Your task to perform on an android device: toggle pop-ups in chrome Image 0: 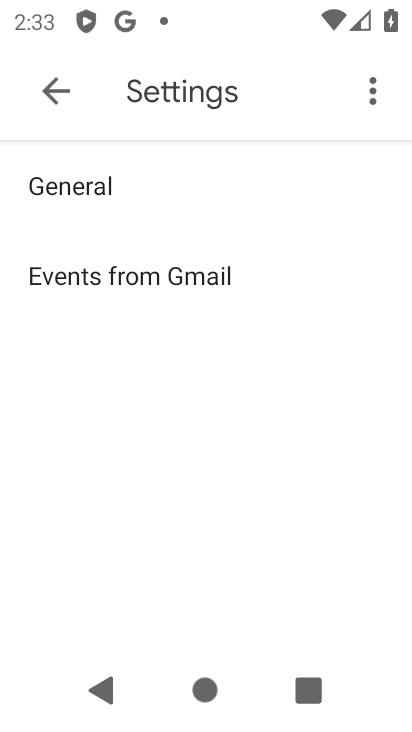
Step 0: press back button
Your task to perform on an android device: toggle pop-ups in chrome Image 1: 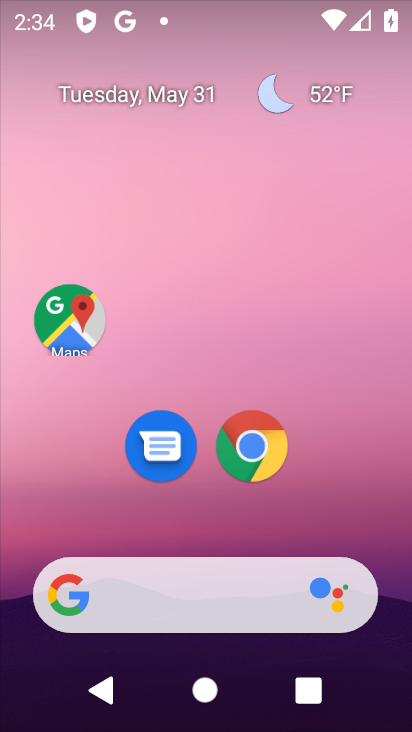
Step 1: click (251, 448)
Your task to perform on an android device: toggle pop-ups in chrome Image 2: 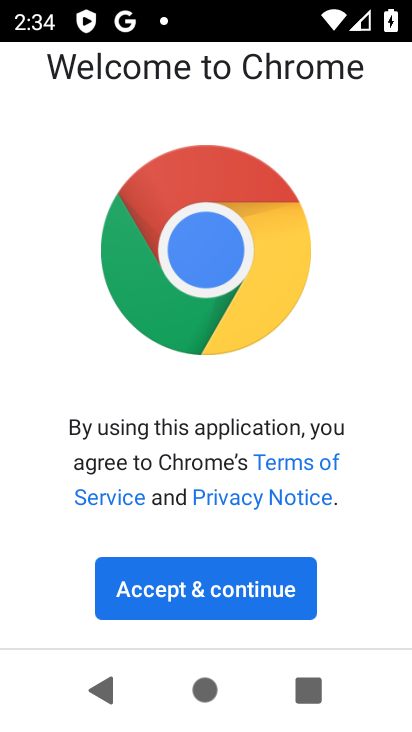
Step 2: click (193, 592)
Your task to perform on an android device: toggle pop-ups in chrome Image 3: 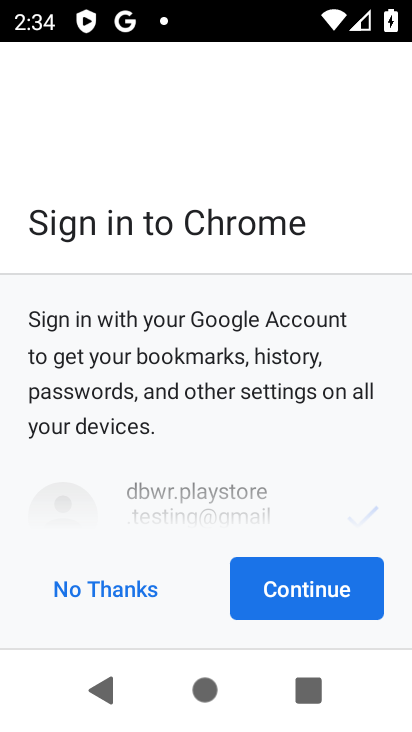
Step 3: click (337, 595)
Your task to perform on an android device: toggle pop-ups in chrome Image 4: 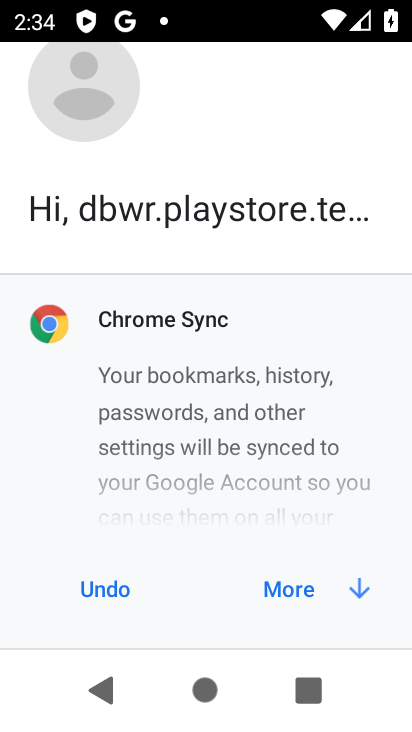
Step 4: click (301, 579)
Your task to perform on an android device: toggle pop-ups in chrome Image 5: 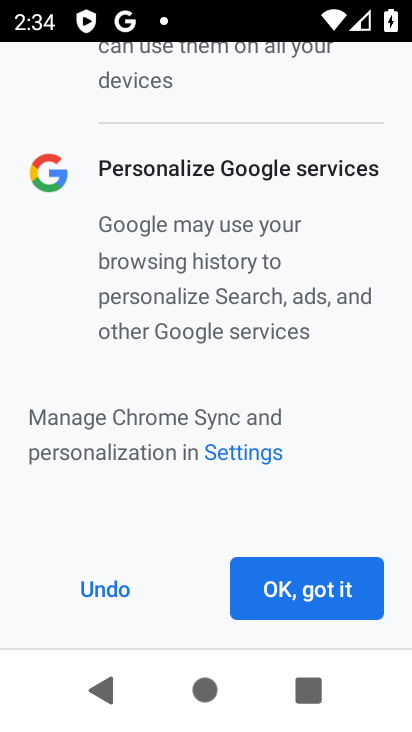
Step 5: click (303, 579)
Your task to perform on an android device: toggle pop-ups in chrome Image 6: 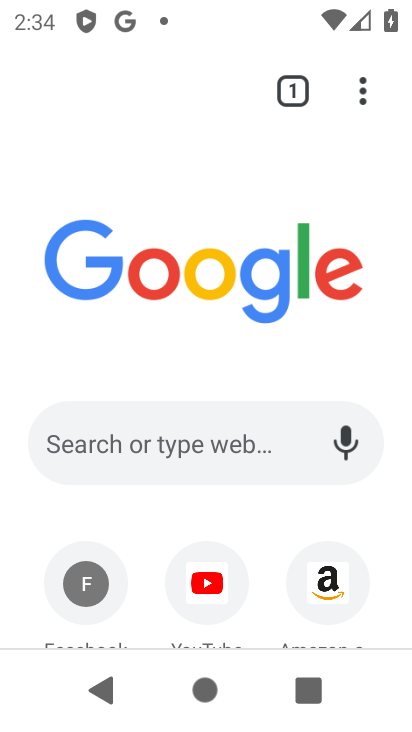
Step 6: click (363, 91)
Your task to perform on an android device: toggle pop-ups in chrome Image 7: 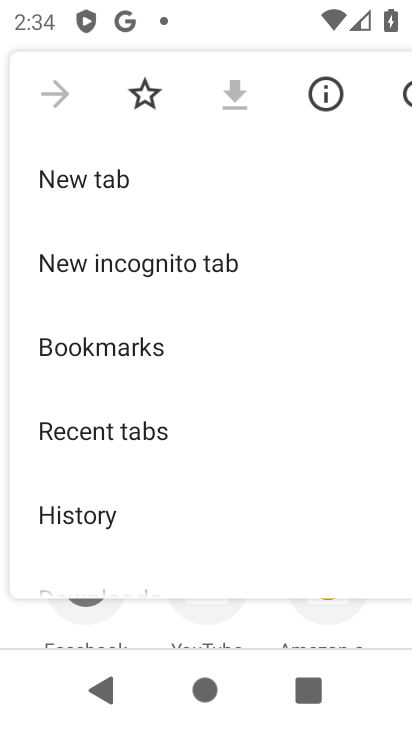
Step 7: drag from (117, 497) to (206, 361)
Your task to perform on an android device: toggle pop-ups in chrome Image 8: 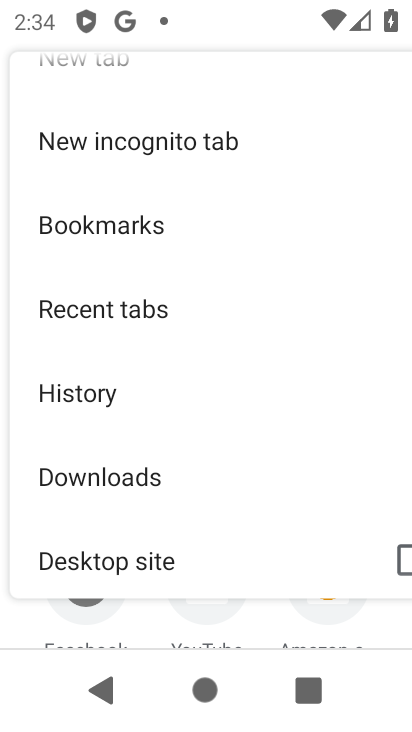
Step 8: drag from (109, 509) to (203, 403)
Your task to perform on an android device: toggle pop-ups in chrome Image 9: 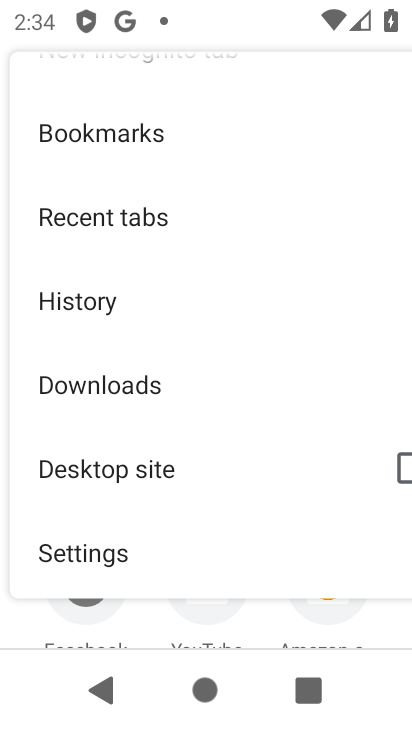
Step 9: drag from (140, 513) to (221, 394)
Your task to perform on an android device: toggle pop-ups in chrome Image 10: 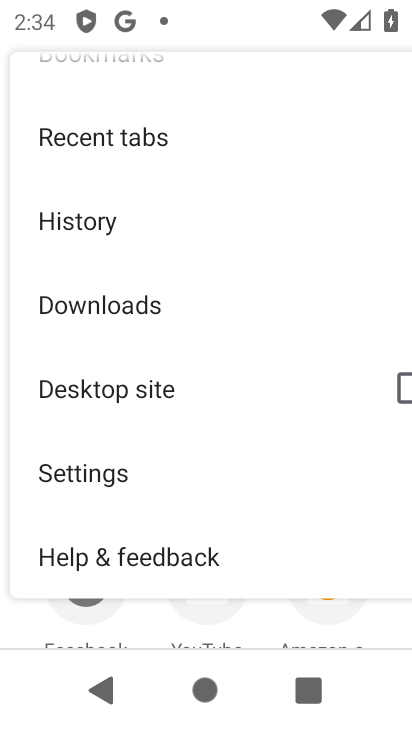
Step 10: click (121, 475)
Your task to perform on an android device: toggle pop-ups in chrome Image 11: 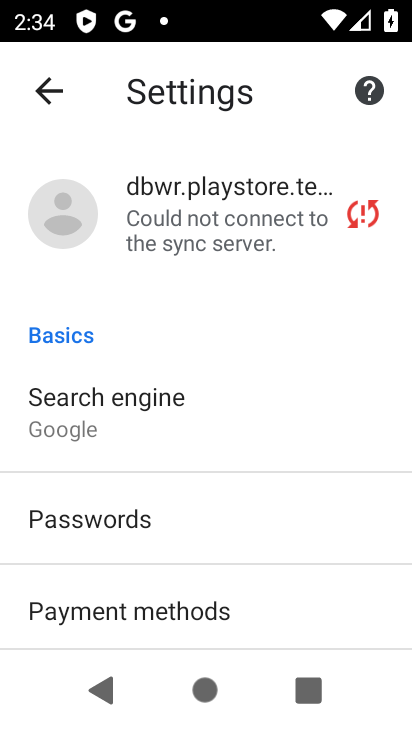
Step 11: drag from (178, 559) to (256, 436)
Your task to perform on an android device: toggle pop-ups in chrome Image 12: 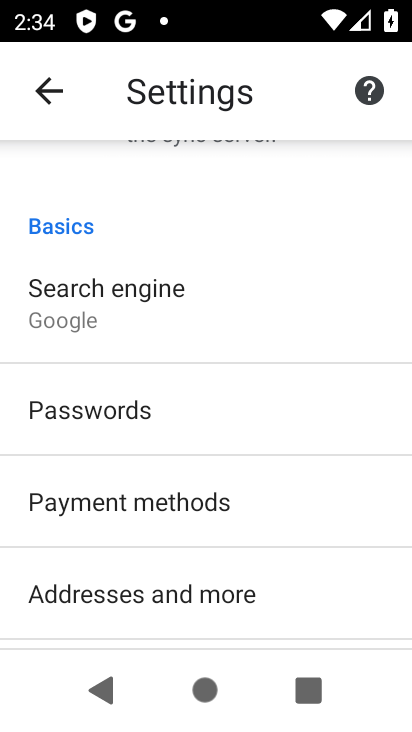
Step 12: drag from (173, 558) to (248, 470)
Your task to perform on an android device: toggle pop-ups in chrome Image 13: 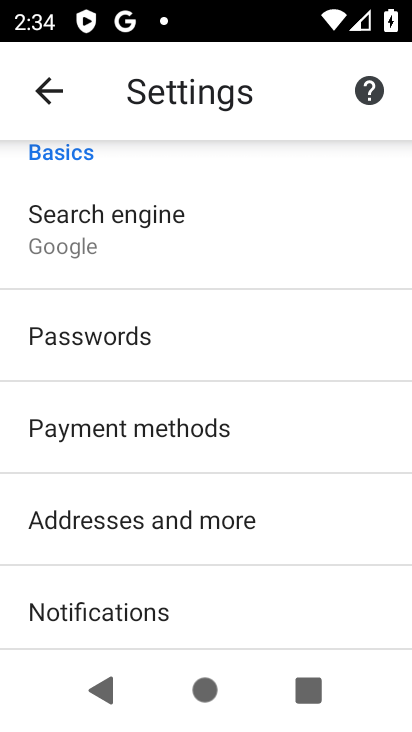
Step 13: drag from (177, 599) to (240, 505)
Your task to perform on an android device: toggle pop-ups in chrome Image 14: 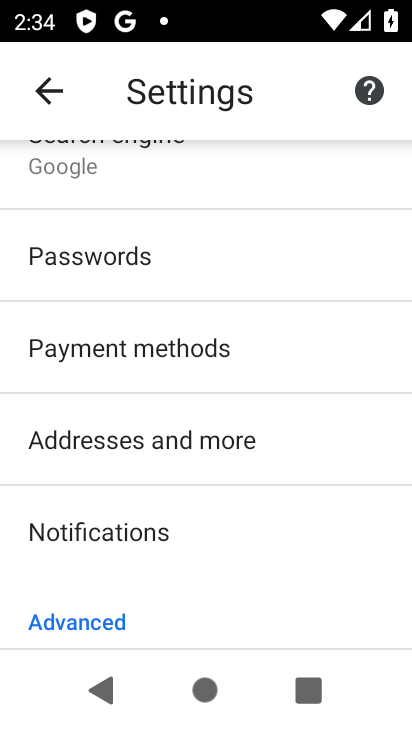
Step 14: drag from (164, 566) to (250, 450)
Your task to perform on an android device: toggle pop-ups in chrome Image 15: 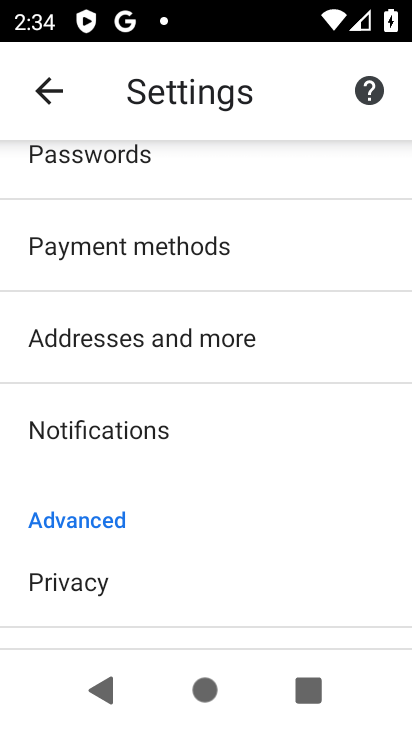
Step 15: drag from (170, 574) to (273, 444)
Your task to perform on an android device: toggle pop-ups in chrome Image 16: 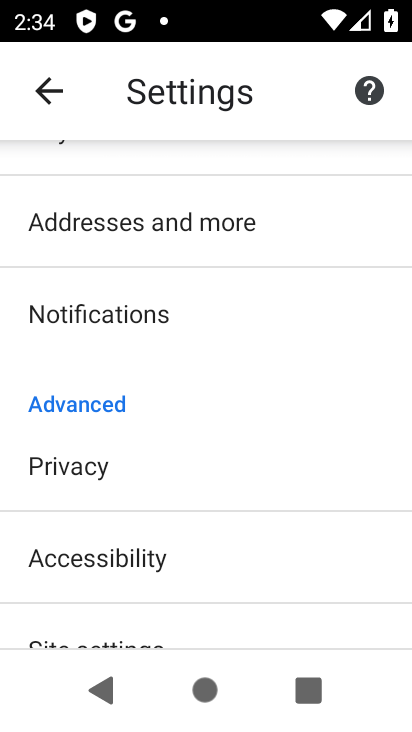
Step 16: drag from (179, 554) to (252, 468)
Your task to perform on an android device: toggle pop-ups in chrome Image 17: 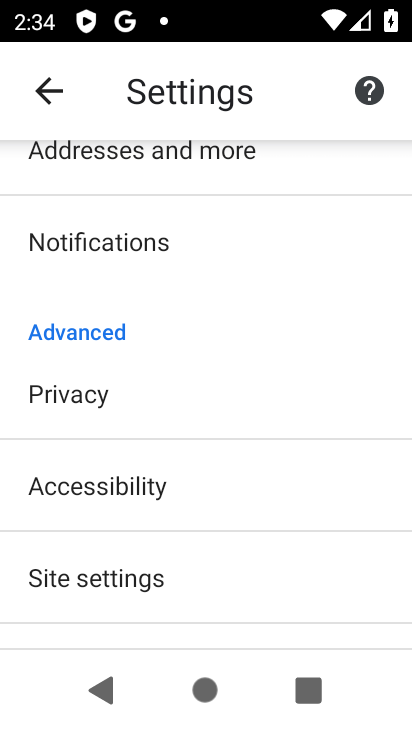
Step 17: click (144, 575)
Your task to perform on an android device: toggle pop-ups in chrome Image 18: 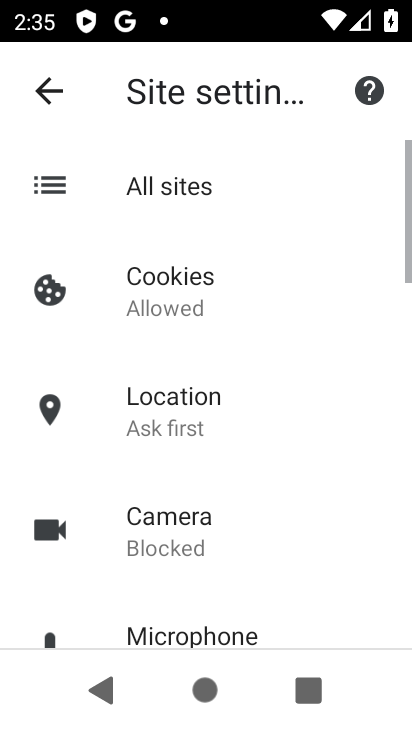
Step 18: drag from (238, 518) to (307, 425)
Your task to perform on an android device: toggle pop-ups in chrome Image 19: 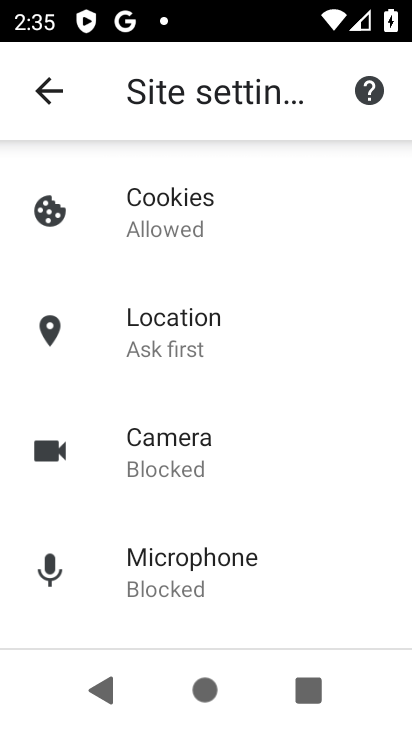
Step 19: drag from (237, 562) to (309, 437)
Your task to perform on an android device: toggle pop-ups in chrome Image 20: 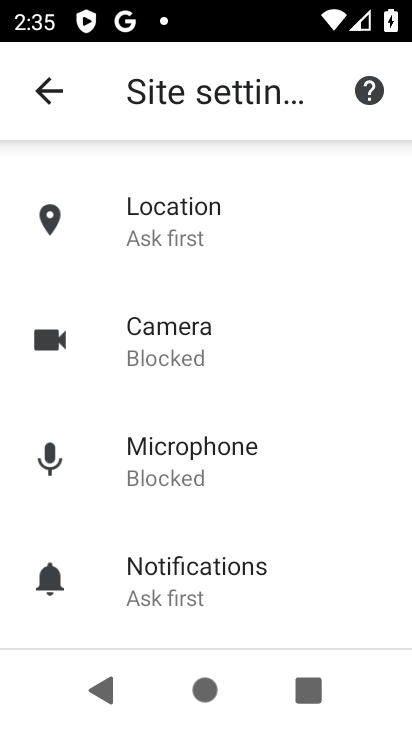
Step 20: drag from (228, 540) to (282, 386)
Your task to perform on an android device: toggle pop-ups in chrome Image 21: 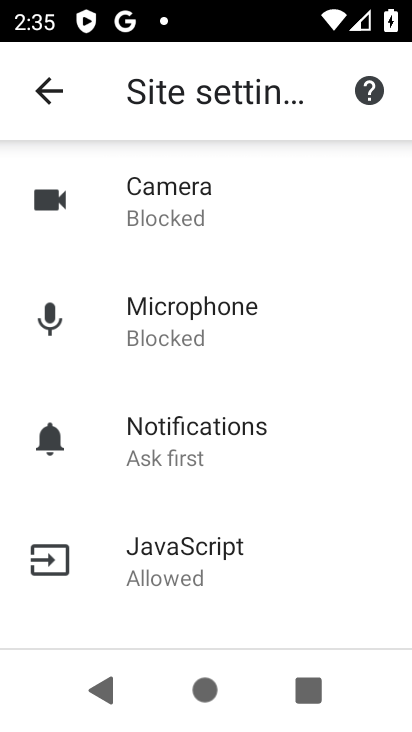
Step 21: drag from (221, 517) to (277, 414)
Your task to perform on an android device: toggle pop-ups in chrome Image 22: 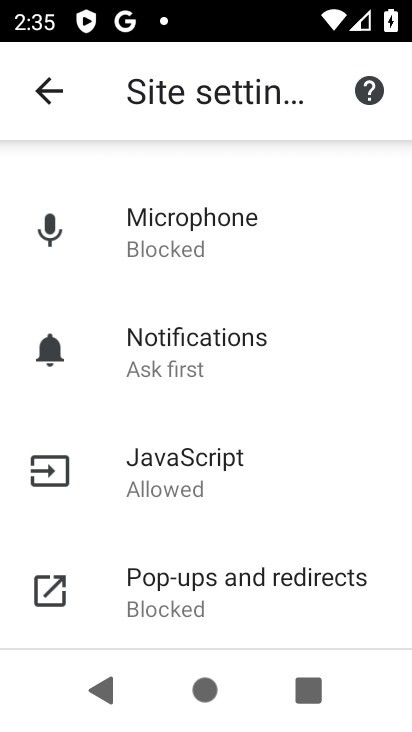
Step 22: drag from (201, 525) to (283, 416)
Your task to perform on an android device: toggle pop-ups in chrome Image 23: 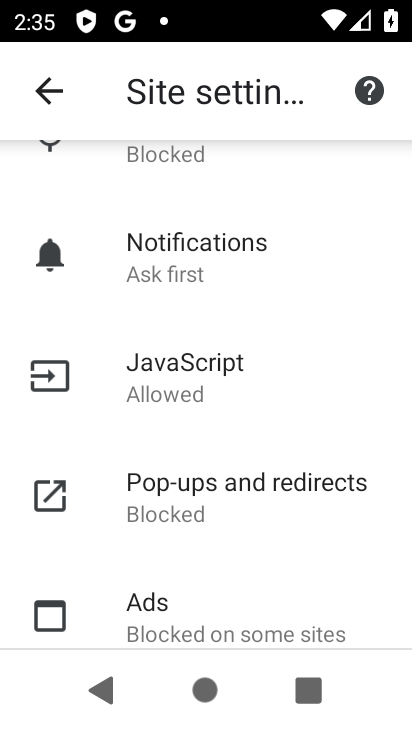
Step 23: click (268, 484)
Your task to perform on an android device: toggle pop-ups in chrome Image 24: 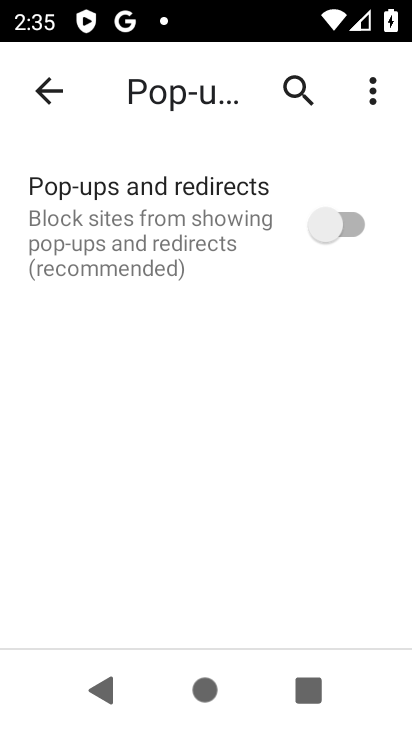
Step 24: click (351, 215)
Your task to perform on an android device: toggle pop-ups in chrome Image 25: 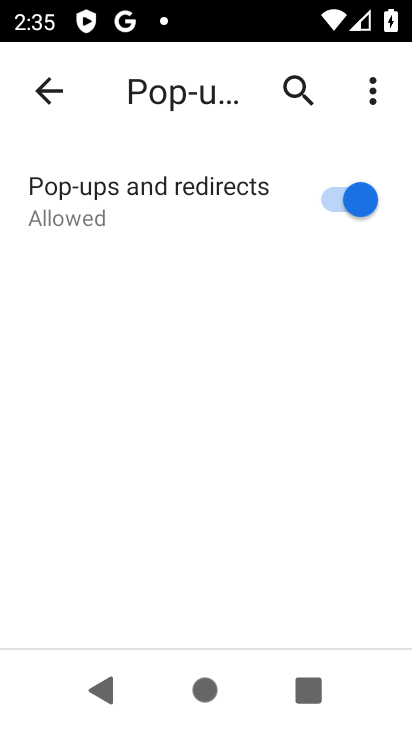
Step 25: task complete